Your task to perform on an android device: Go to Android settings Image 0: 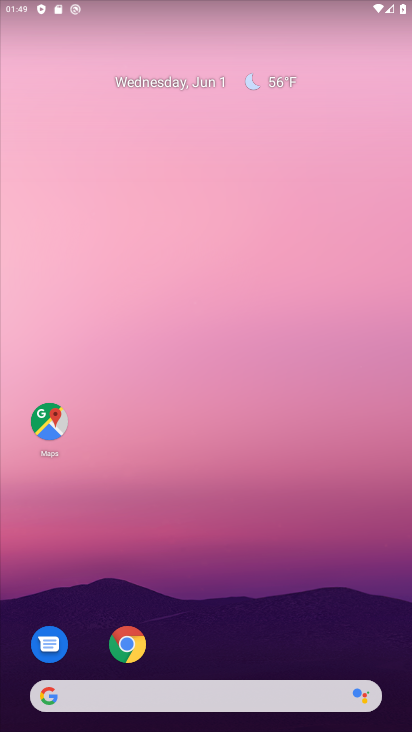
Step 0: drag from (207, 681) to (205, 256)
Your task to perform on an android device: Go to Android settings Image 1: 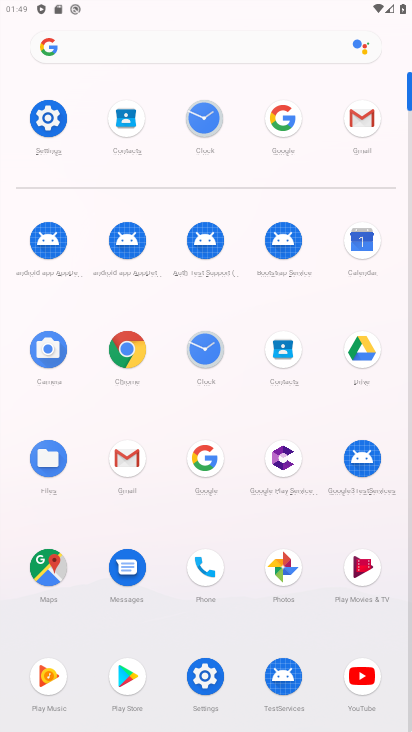
Step 1: click (36, 129)
Your task to perform on an android device: Go to Android settings Image 2: 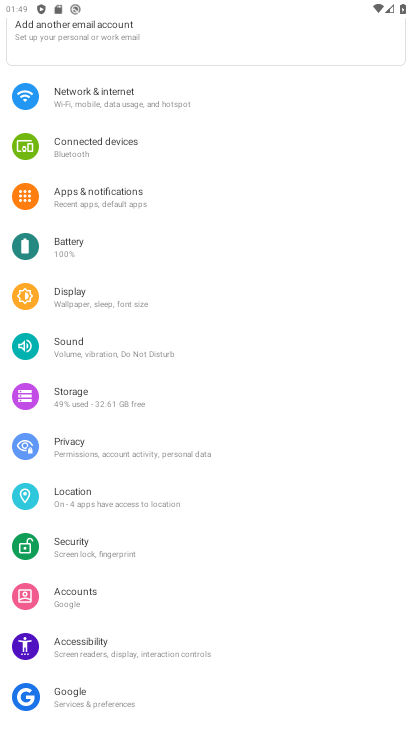
Step 2: task complete